Your task to perform on an android device: Go to Google maps Image 0: 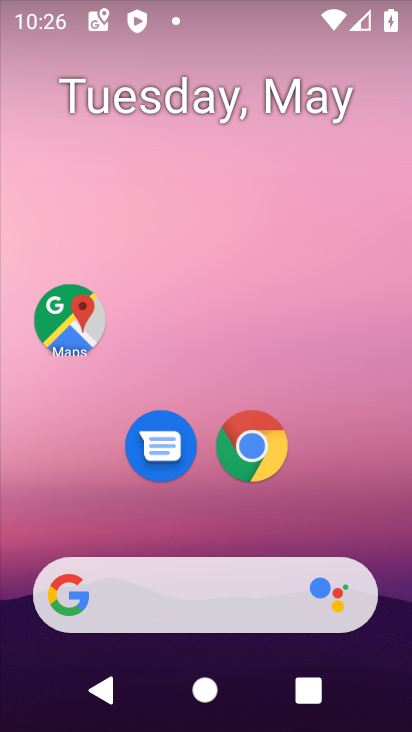
Step 0: click (70, 304)
Your task to perform on an android device: Go to Google maps Image 1: 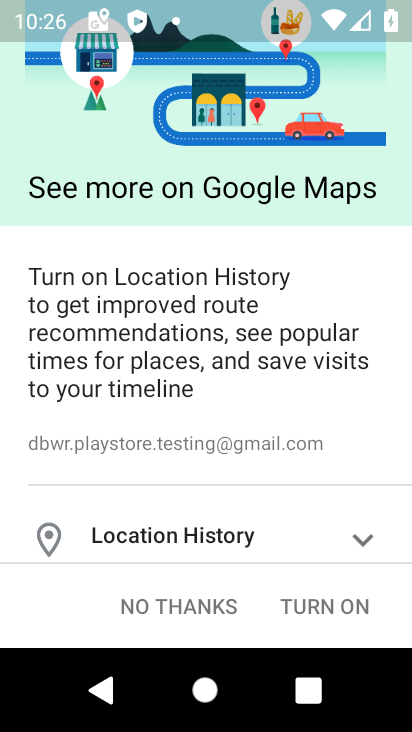
Step 1: click (196, 605)
Your task to perform on an android device: Go to Google maps Image 2: 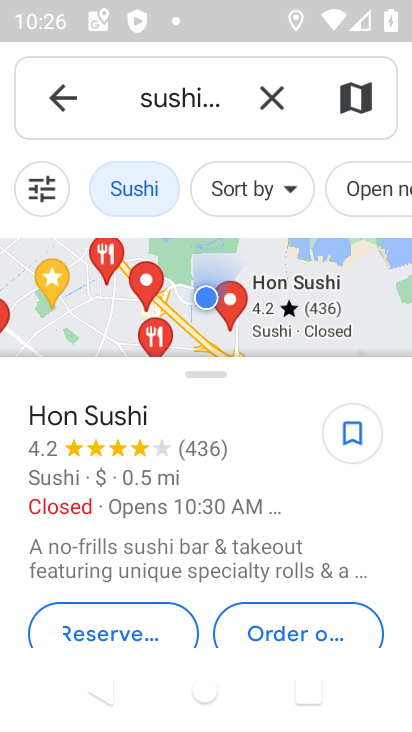
Step 2: click (69, 90)
Your task to perform on an android device: Go to Google maps Image 3: 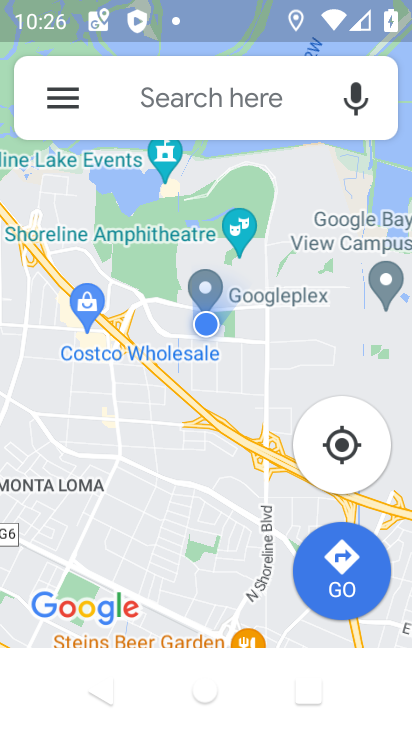
Step 3: task complete